Your task to perform on an android device: Go to battery settings Image 0: 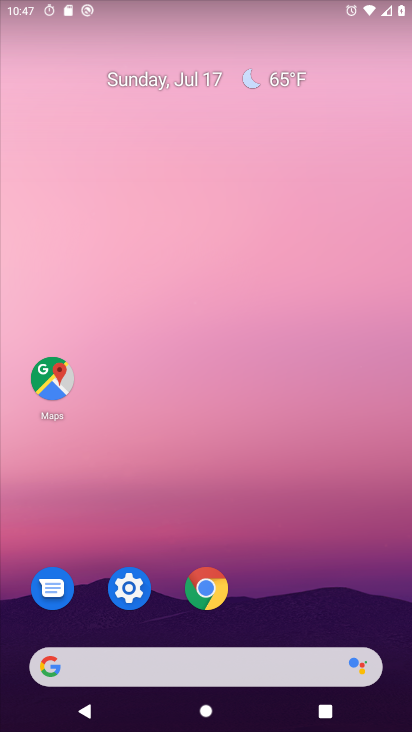
Step 0: drag from (308, 705) to (284, 275)
Your task to perform on an android device: Go to battery settings Image 1: 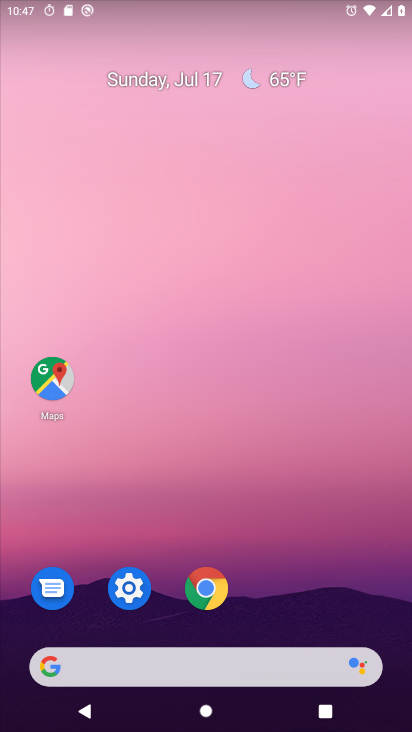
Step 1: drag from (224, 685) to (191, 137)
Your task to perform on an android device: Go to battery settings Image 2: 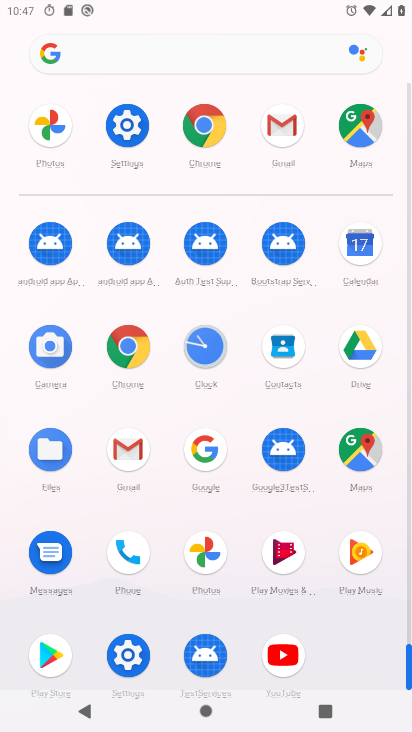
Step 2: click (129, 131)
Your task to perform on an android device: Go to battery settings Image 3: 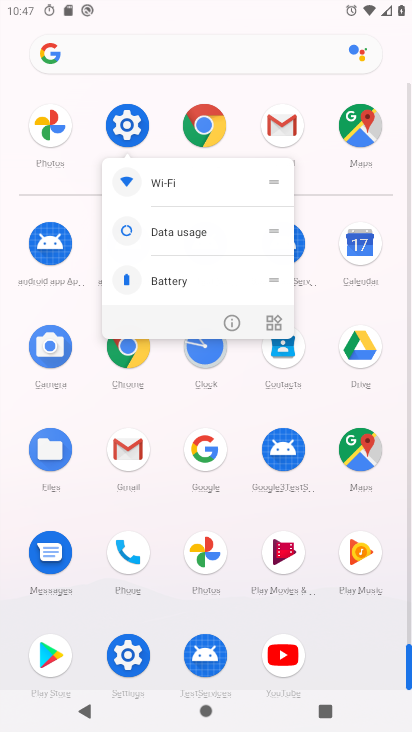
Step 3: click (129, 130)
Your task to perform on an android device: Go to battery settings Image 4: 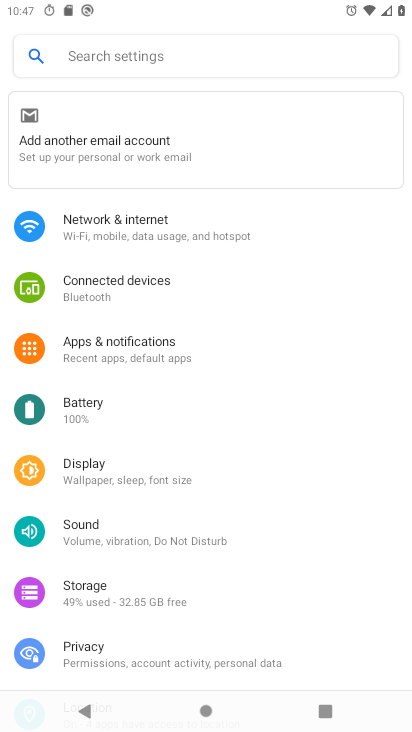
Step 4: click (89, 396)
Your task to perform on an android device: Go to battery settings Image 5: 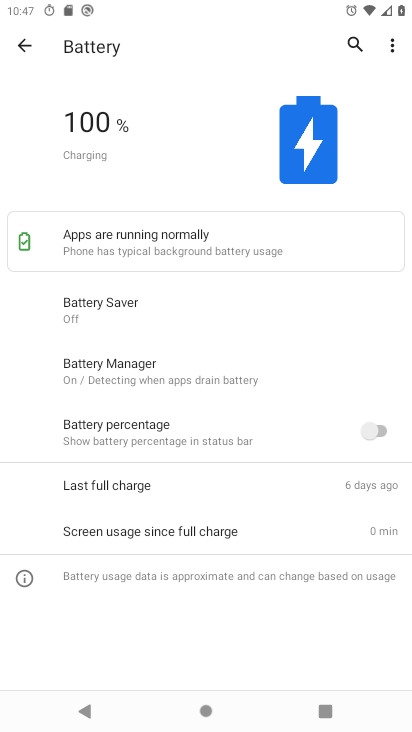
Step 5: task complete